Your task to perform on an android device: turn on showing notifications on the lock screen Image 0: 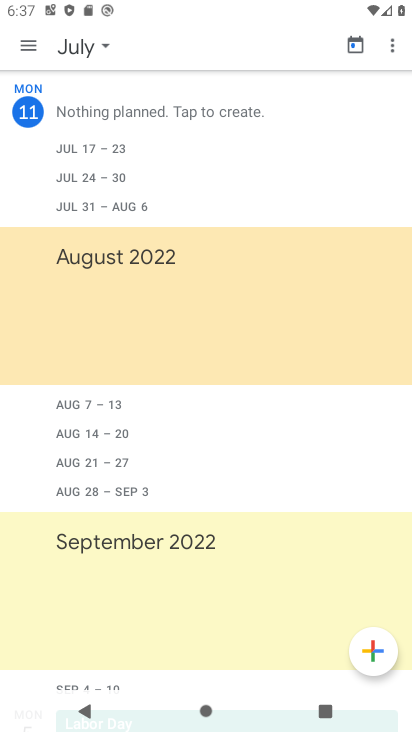
Step 0: press home button
Your task to perform on an android device: turn on showing notifications on the lock screen Image 1: 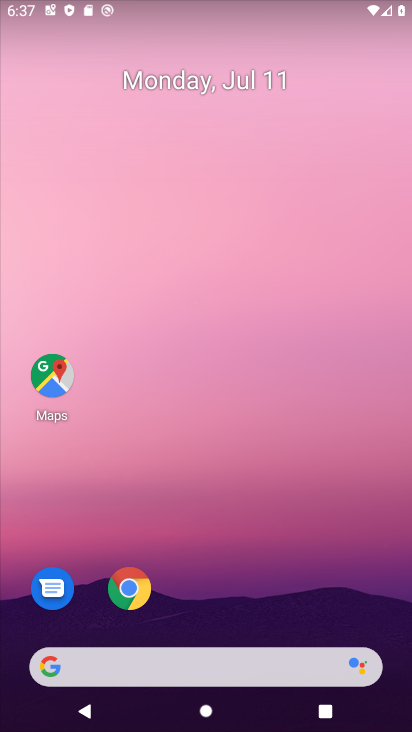
Step 1: drag from (398, 647) to (253, 30)
Your task to perform on an android device: turn on showing notifications on the lock screen Image 2: 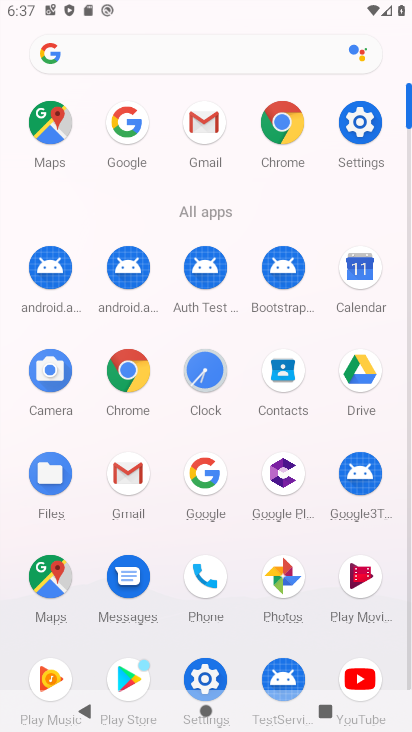
Step 2: click (341, 131)
Your task to perform on an android device: turn on showing notifications on the lock screen Image 3: 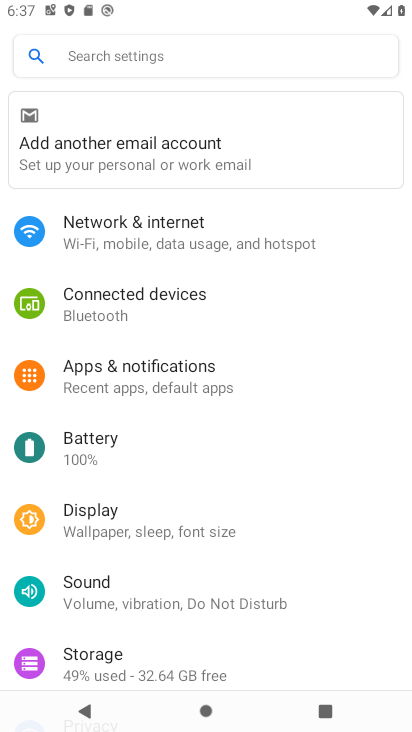
Step 3: click (169, 410)
Your task to perform on an android device: turn on showing notifications on the lock screen Image 4: 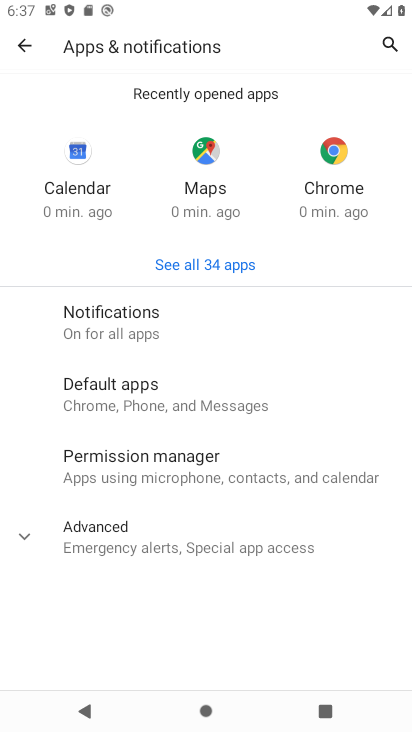
Step 4: click (77, 546)
Your task to perform on an android device: turn on showing notifications on the lock screen Image 5: 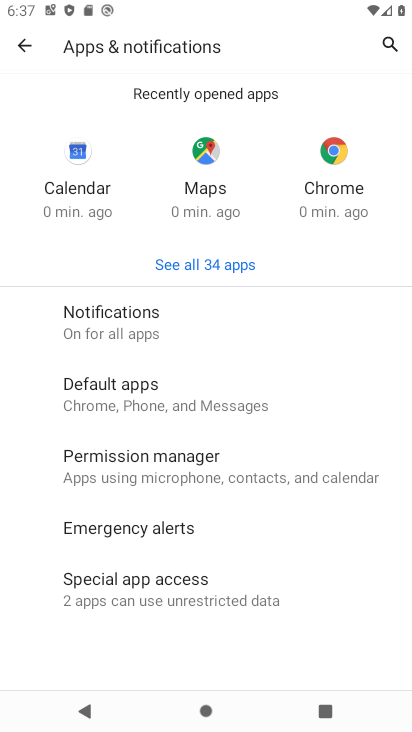
Step 5: click (135, 313)
Your task to perform on an android device: turn on showing notifications on the lock screen Image 6: 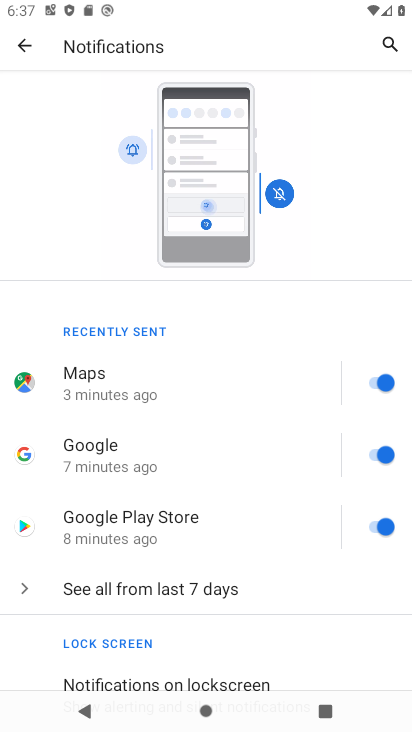
Step 6: click (213, 679)
Your task to perform on an android device: turn on showing notifications on the lock screen Image 7: 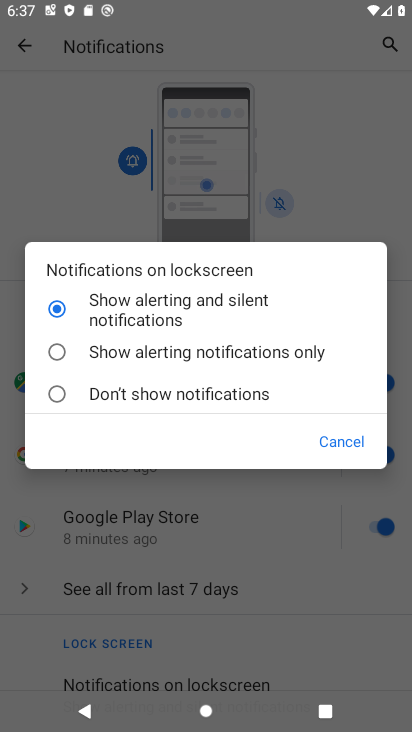
Step 7: task complete